Your task to perform on an android device: Turn on the flashlight Image 0: 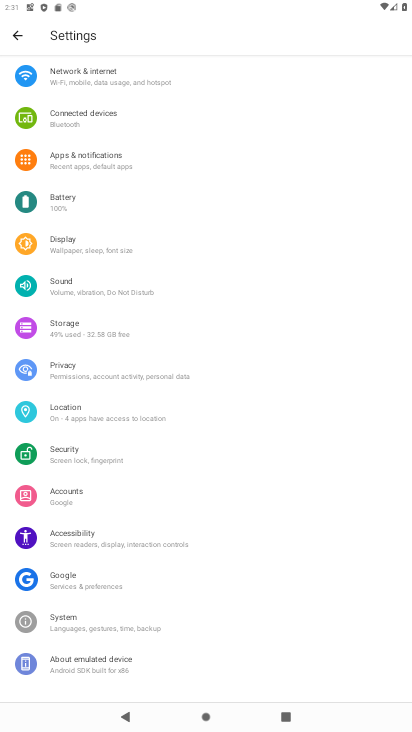
Step 0: task impossible